Your task to perform on an android device: Search for the best rated headphones on Amazon Image 0: 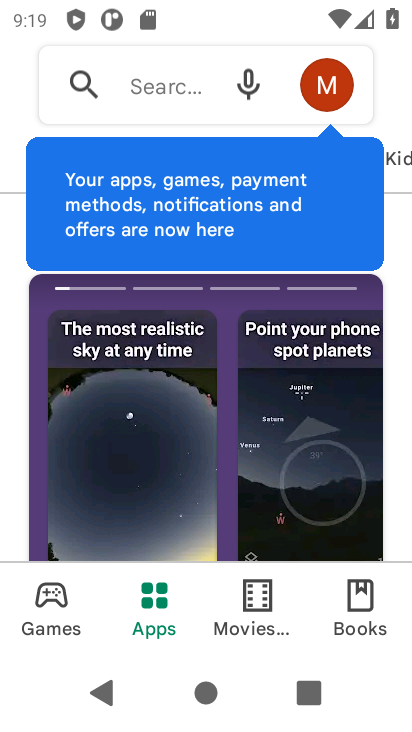
Step 0: press home button
Your task to perform on an android device: Search for the best rated headphones on Amazon Image 1: 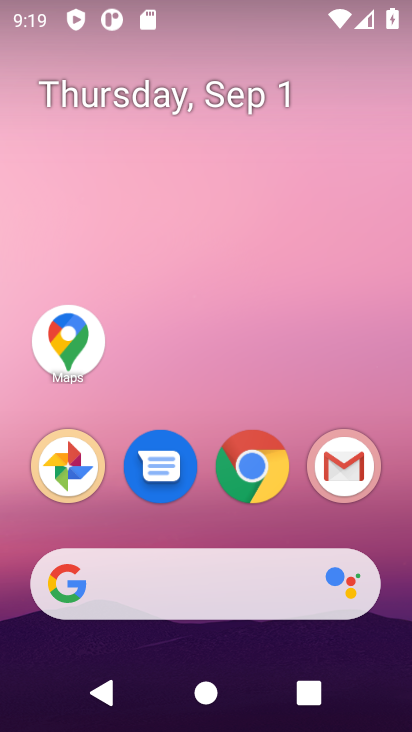
Step 1: click (391, 79)
Your task to perform on an android device: Search for the best rated headphones on Amazon Image 2: 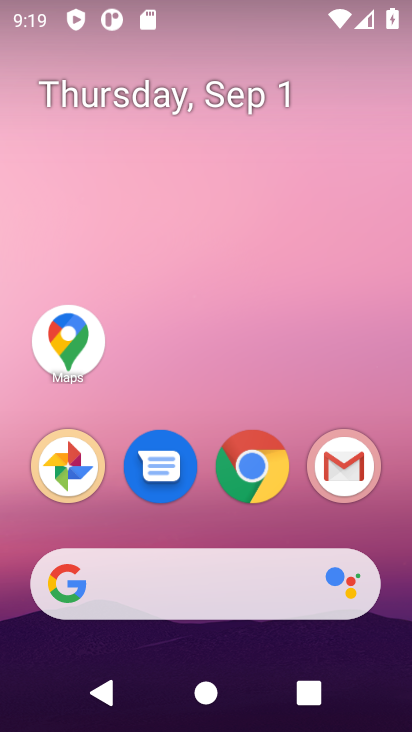
Step 2: drag from (393, 540) to (391, 76)
Your task to perform on an android device: Search for the best rated headphones on Amazon Image 3: 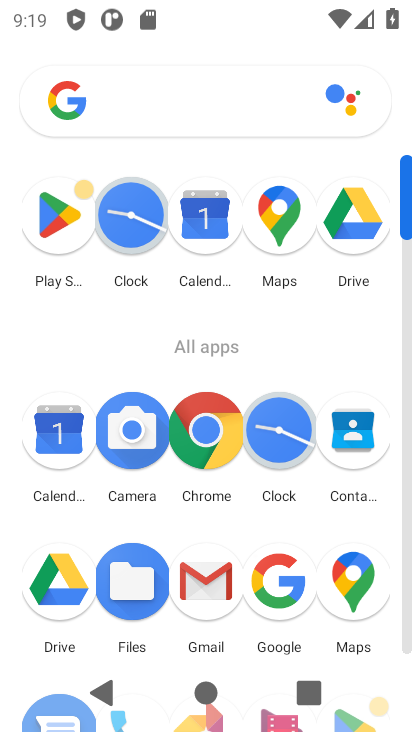
Step 3: click (209, 435)
Your task to perform on an android device: Search for the best rated headphones on Amazon Image 4: 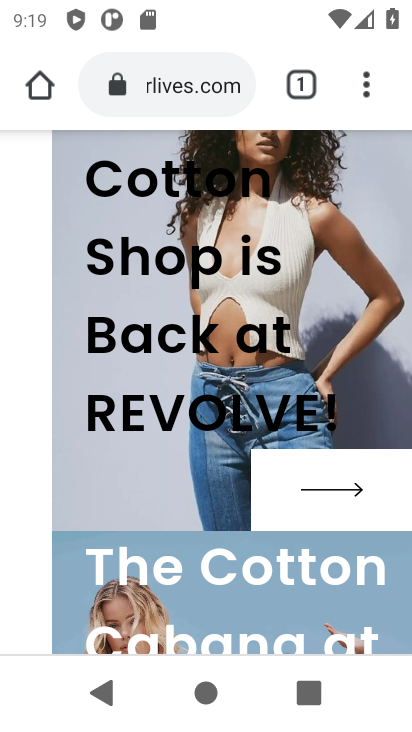
Step 4: click (206, 77)
Your task to perform on an android device: Search for the best rated headphones on Amazon Image 5: 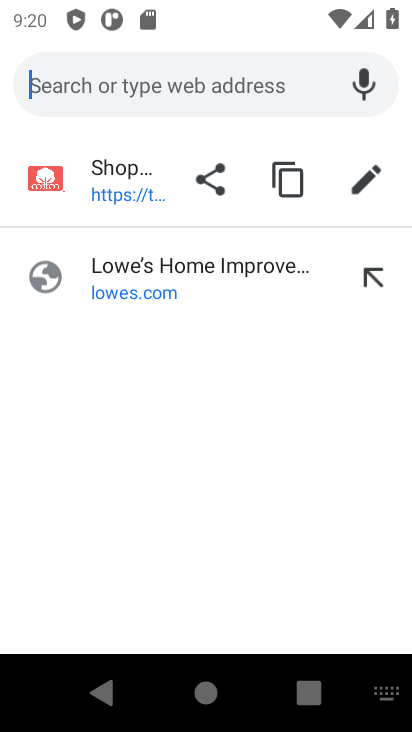
Step 5: press enter
Your task to perform on an android device: Search for the best rated headphones on Amazon Image 6: 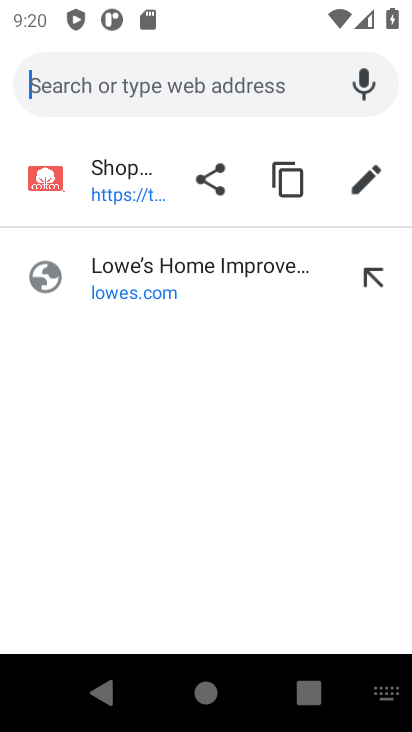
Step 6: type "amazon"
Your task to perform on an android device: Search for the best rated headphones on Amazon Image 7: 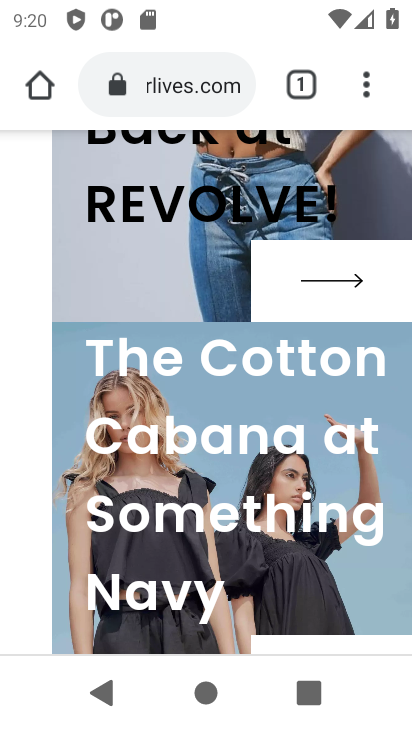
Step 7: click (178, 77)
Your task to perform on an android device: Search for the best rated headphones on Amazon Image 8: 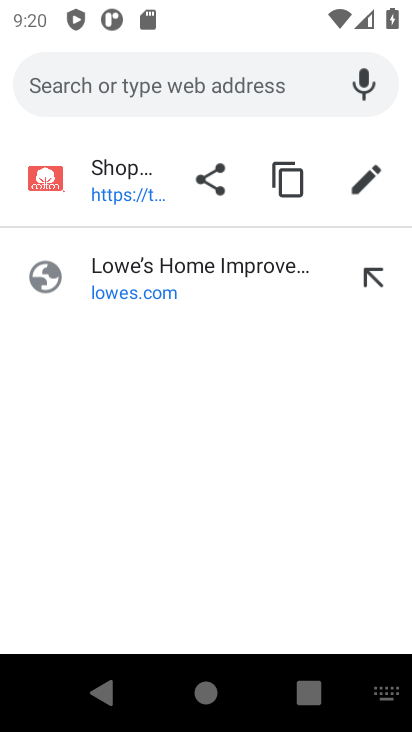
Step 8: type "amazon"
Your task to perform on an android device: Search for the best rated headphones on Amazon Image 9: 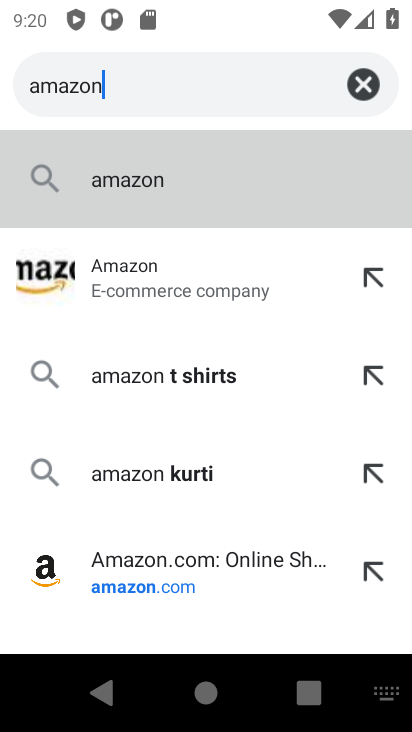
Step 9: click (155, 282)
Your task to perform on an android device: Search for the best rated headphones on Amazon Image 10: 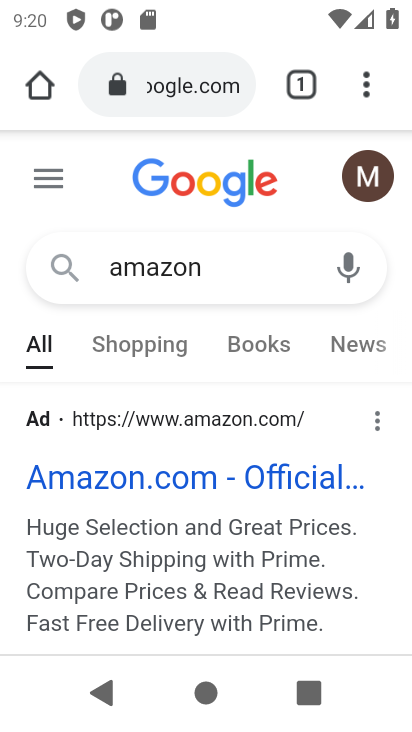
Step 10: click (265, 477)
Your task to perform on an android device: Search for the best rated headphones on Amazon Image 11: 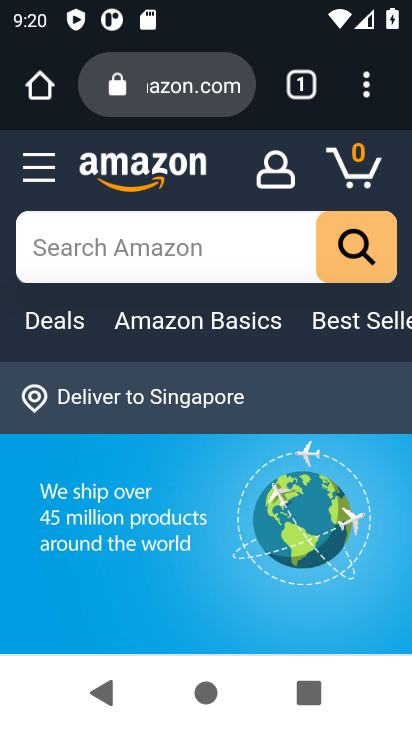
Step 11: click (209, 243)
Your task to perform on an android device: Search for the best rated headphones on Amazon Image 12: 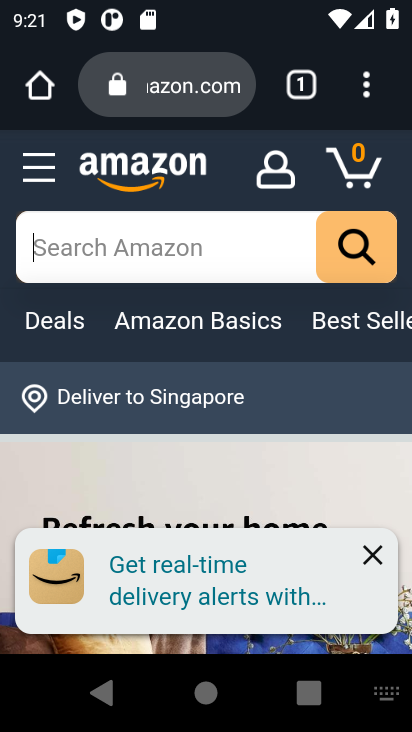
Step 12: press enter
Your task to perform on an android device: Search for the best rated headphones on Amazon Image 13: 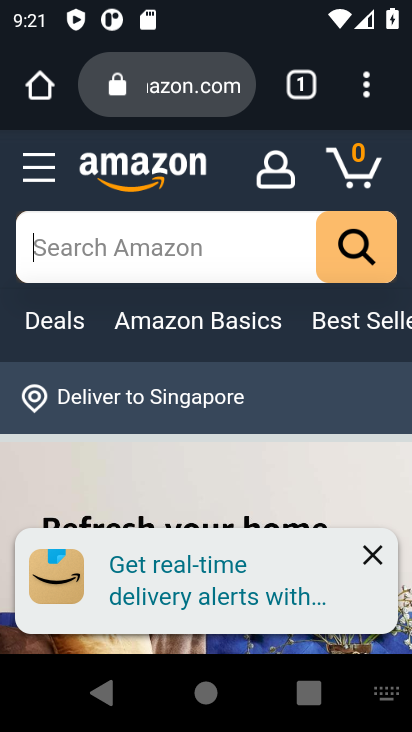
Step 13: type "best rated headphones"
Your task to perform on an android device: Search for the best rated headphones on Amazon Image 14: 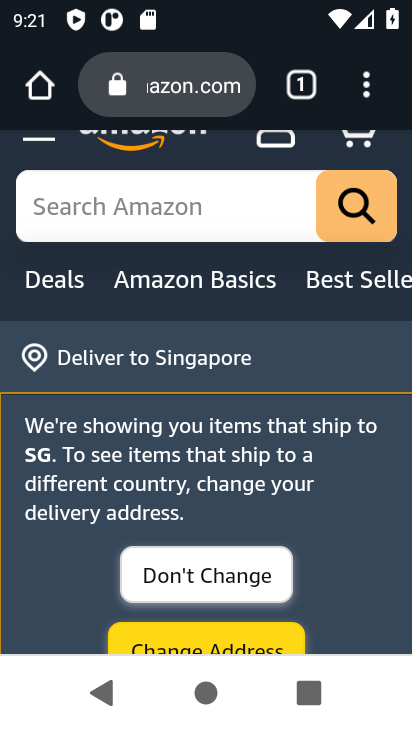
Step 14: click (267, 572)
Your task to perform on an android device: Search for the best rated headphones on Amazon Image 15: 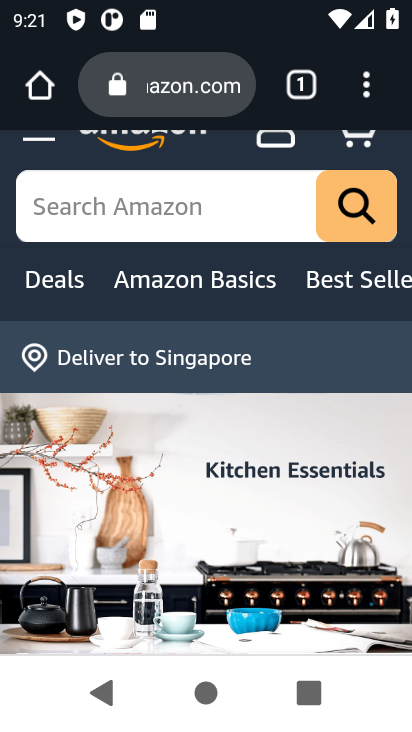
Step 15: click (116, 206)
Your task to perform on an android device: Search for the best rated headphones on Amazon Image 16: 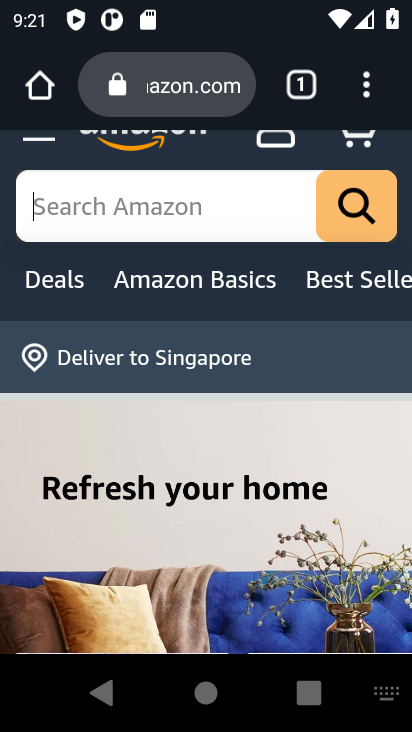
Step 16: type "best rated headphones"
Your task to perform on an android device: Search for the best rated headphones on Amazon Image 17: 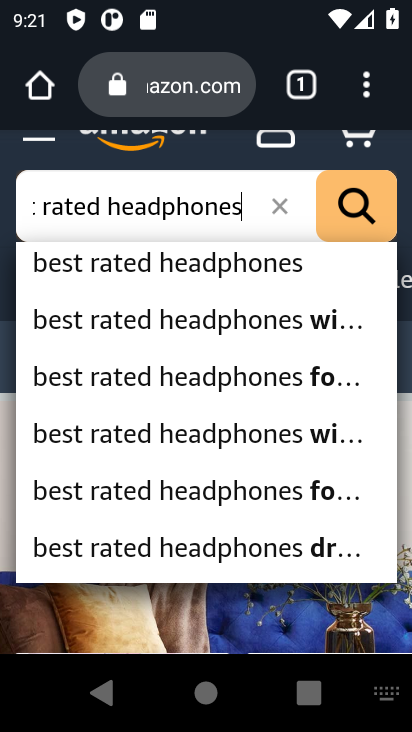
Step 17: click (255, 269)
Your task to perform on an android device: Search for the best rated headphones on Amazon Image 18: 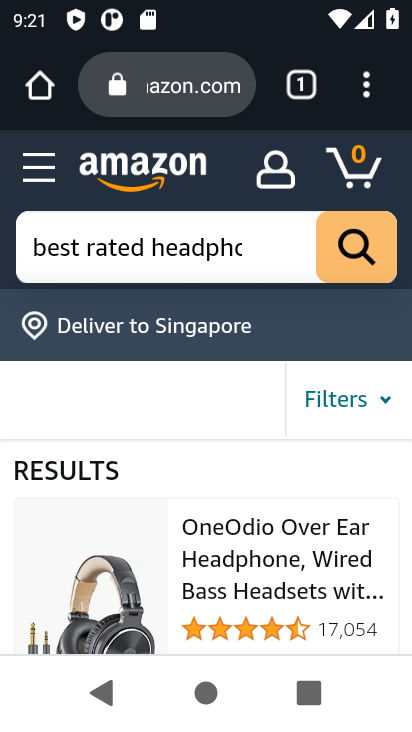
Step 18: task complete